Your task to perform on an android device: check storage Image 0: 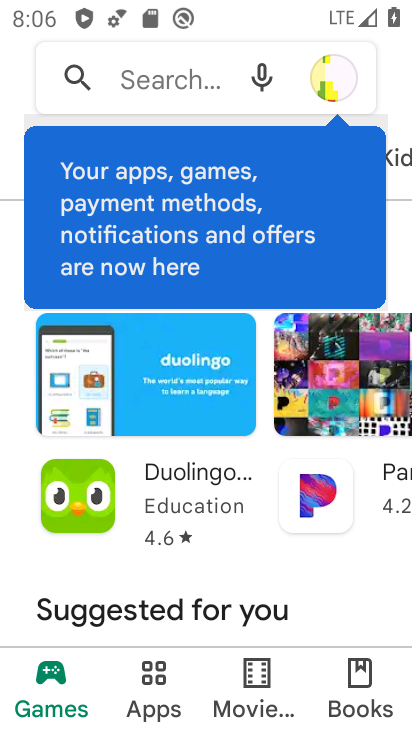
Step 0: press back button
Your task to perform on an android device: check storage Image 1: 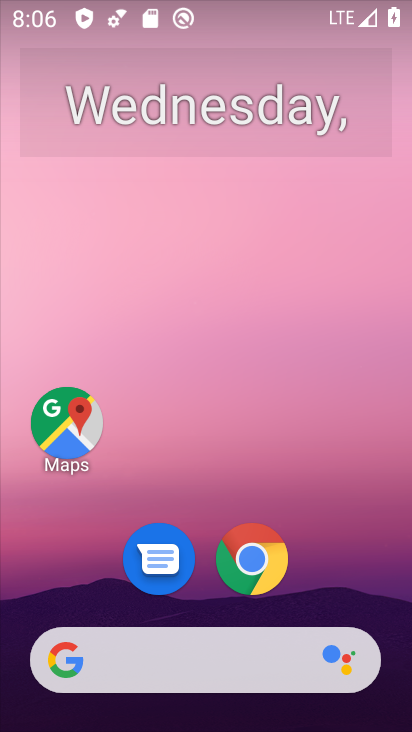
Step 1: drag from (190, 583) to (319, 30)
Your task to perform on an android device: check storage Image 2: 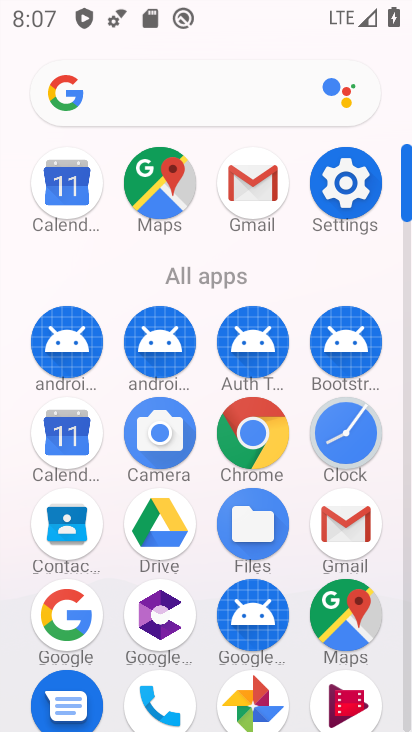
Step 2: click (360, 179)
Your task to perform on an android device: check storage Image 3: 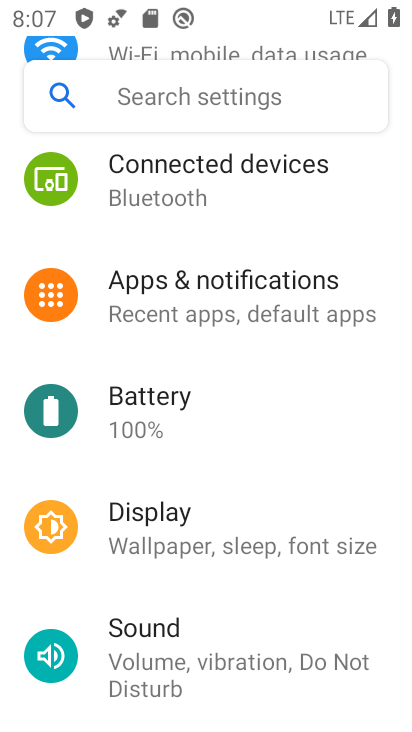
Step 3: drag from (206, 638) to (274, 219)
Your task to perform on an android device: check storage Image 4: 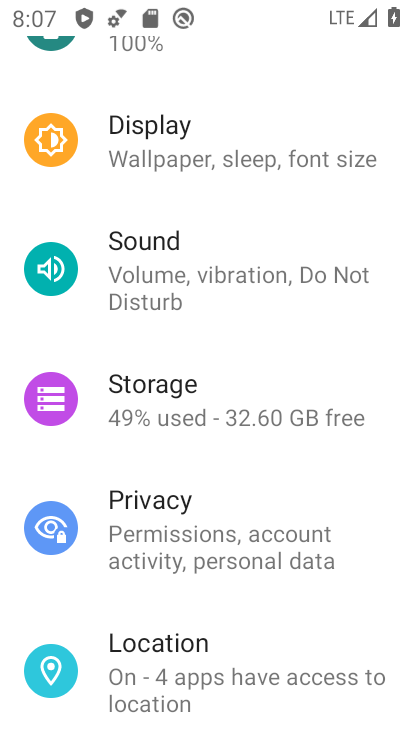
Step 4: click (178, 408)
Your task to perform on an android device: check storage Image 5: 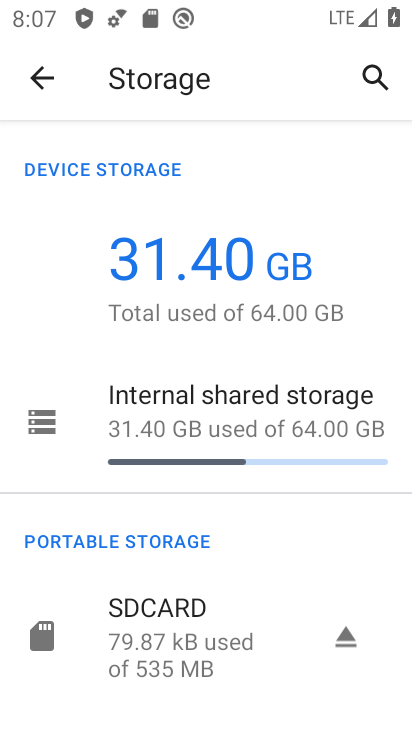
Step 5: task complete